Your task to perform on an android device: Open internet settings Image 0: 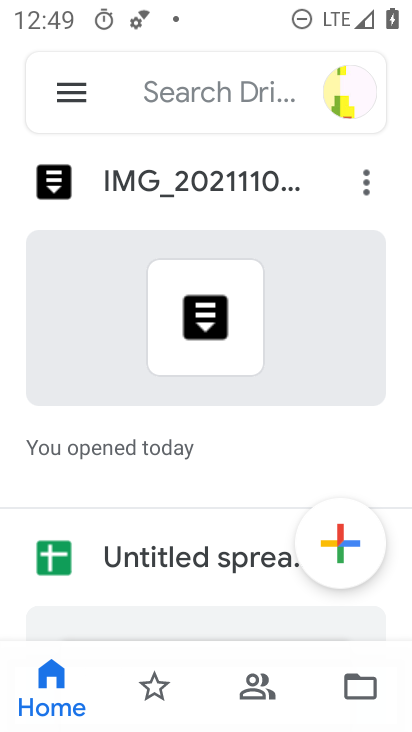
Step 0: press home button
Your task to perform on an android device: Open internet settings Image 1: 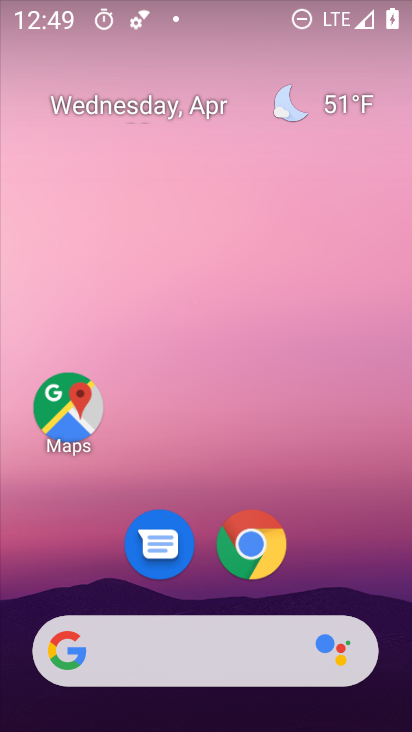
Step 1: drag from (351, 541) to (347, 95)
Your task to perform on an android device: Open internet settings Image 2: 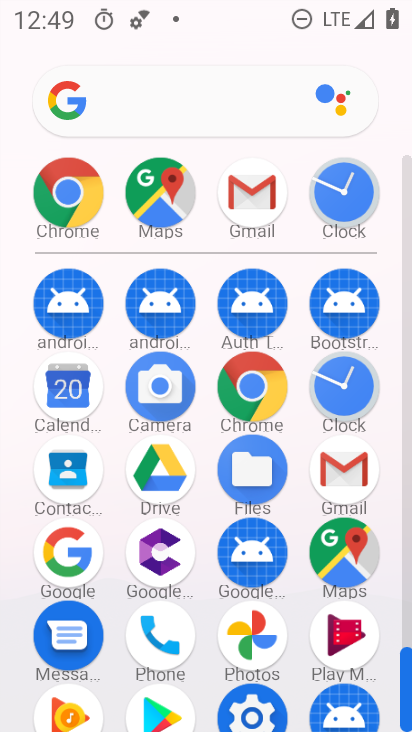
Step 2: drag from (201, 526) to (209, 312)
Your task to perform on an android device: Open internet settings Image 3: 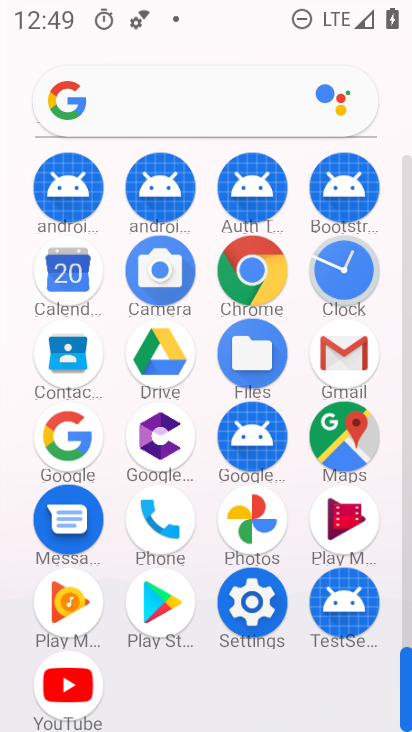
Step 3: click (247, 609)
Your task to perform on an android device: Open internet settings Image 4: 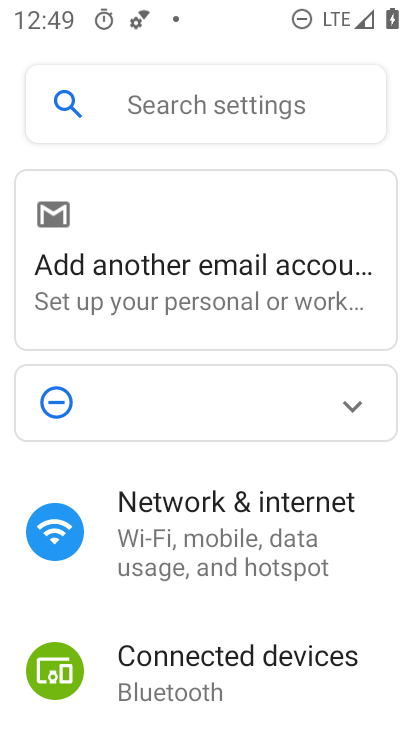
Step 4: drag from (371, 645) to (379, 356)
Your task to perform on an android device: Open internet settings Image 5: 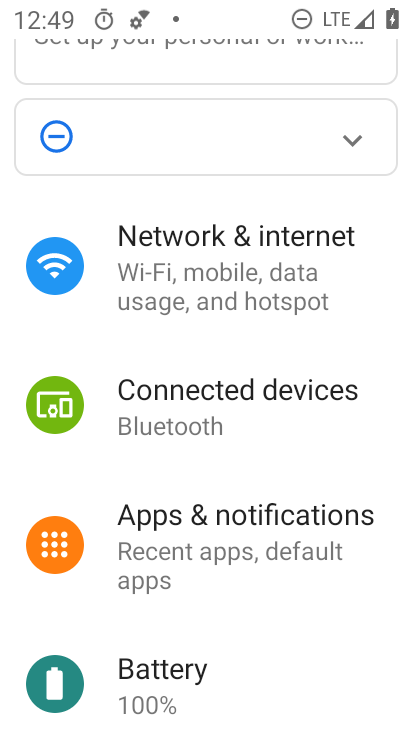
Step 5: drag from (349, 634) to (354, 404)
Your task to perform on an android device: Open internet settings Image 6: 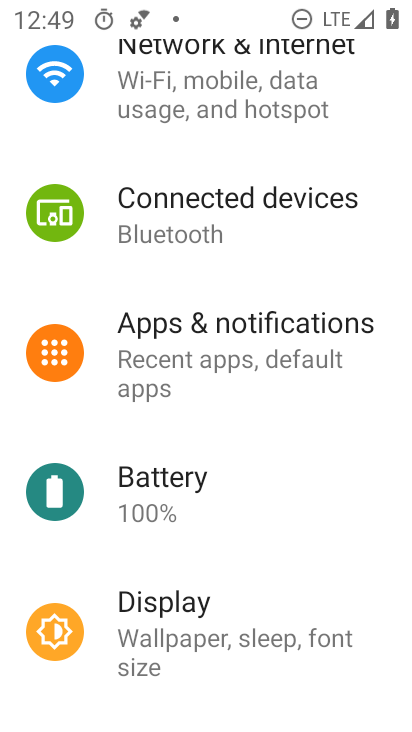
Step 6: drag from (362, 678) to (380, 483)
Your task to perform on an android device: Open internet settings Image 7: 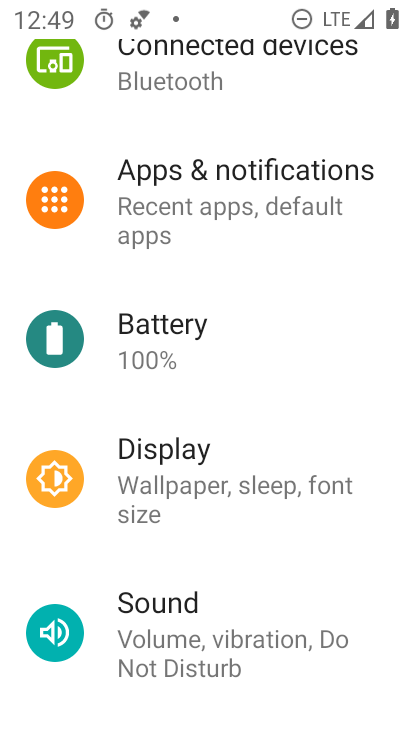
Step 7: drag from (372, 656) to (371, 445)
Your task to perform on an android device: Open internet settings Image 8: 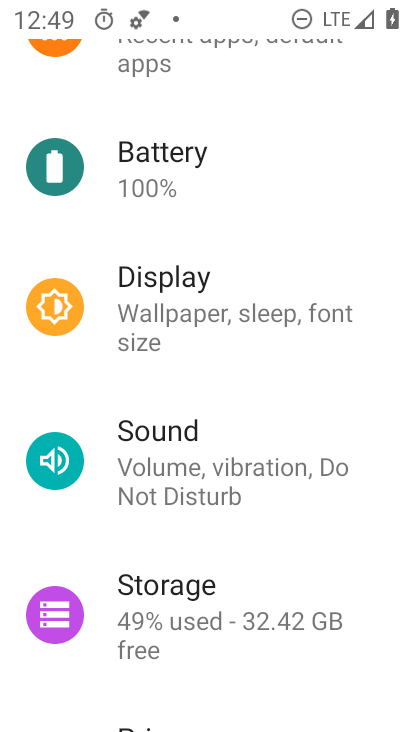
Step 8: drag from (359, 669) to (362, 483)
Your task to perform on an android device: Open internet settings Image 9: 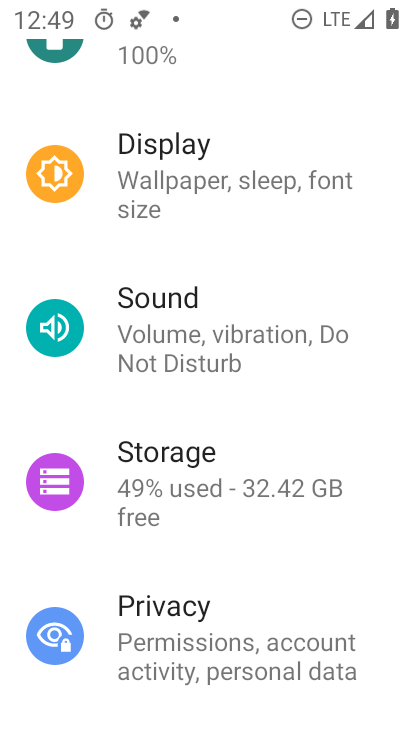
Step 9: drag from (372, 665) to (371, 493)
Your task to perform on an android device: Open internet settings Image 10: 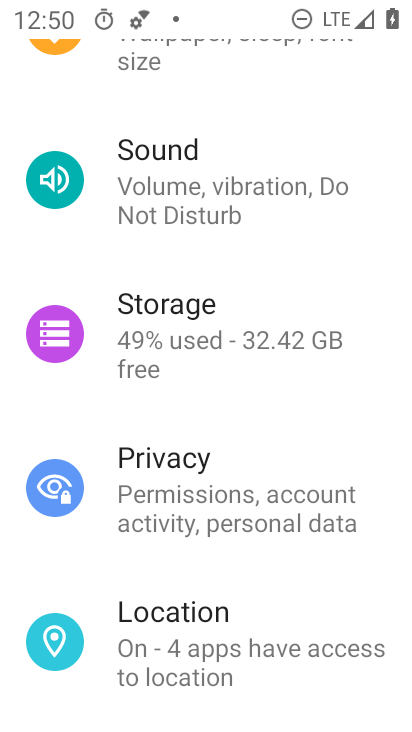
Step 10: drag from (356, 694) to (379, 447)
Your task to perform on an android device: Open internet settings Image 11: 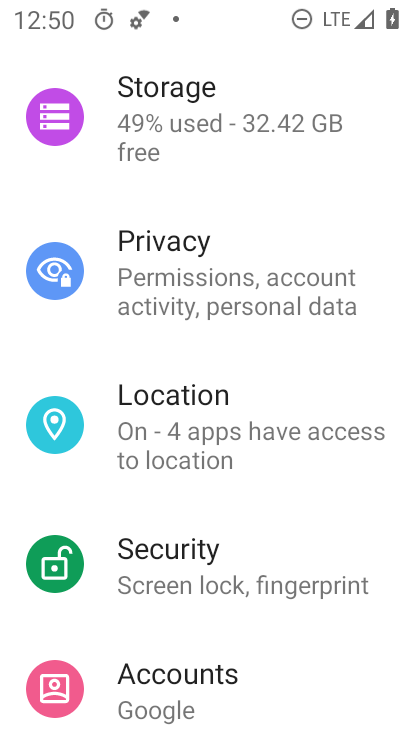
Step 11: drag from (370, 643) to (383, 409)
Your task to perform on an android device: Open internet settings Image 12: 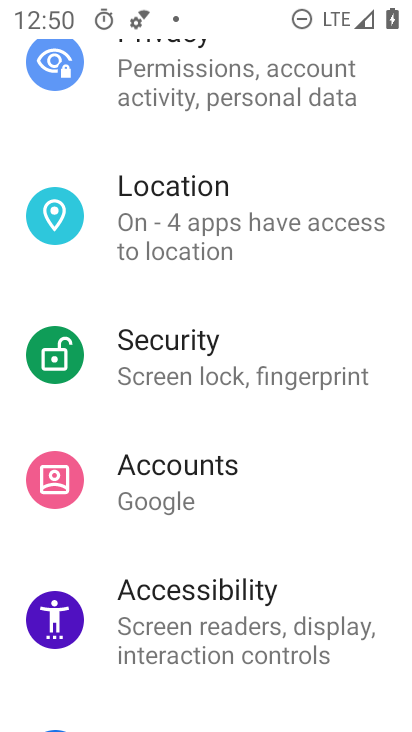
Step 12: drag from (378, 300) to (377, 463)
Your task to perform on an android device: Open internet settings Image 13: 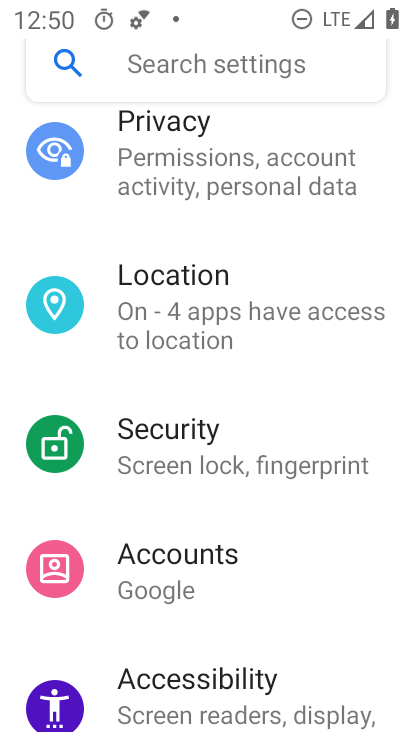
Step 13: drag from (375, 253) to (369, 431)
Your task to perform on an android device: Open internet settings Image 14: 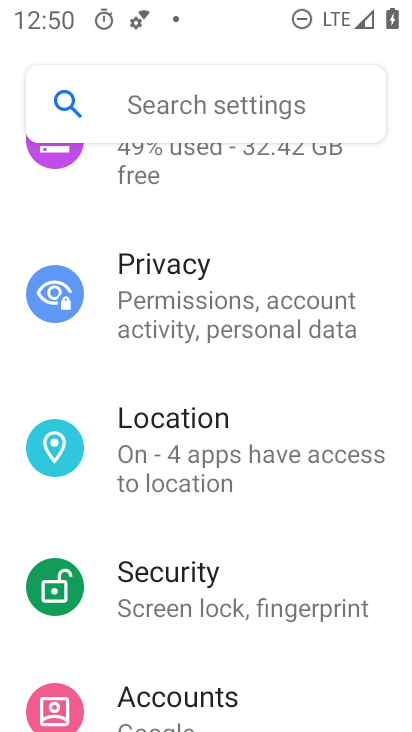
Step 14: drag from (388, 226) to (379, 413)
Your task to perform on an android device: Open internet settings Image 15: 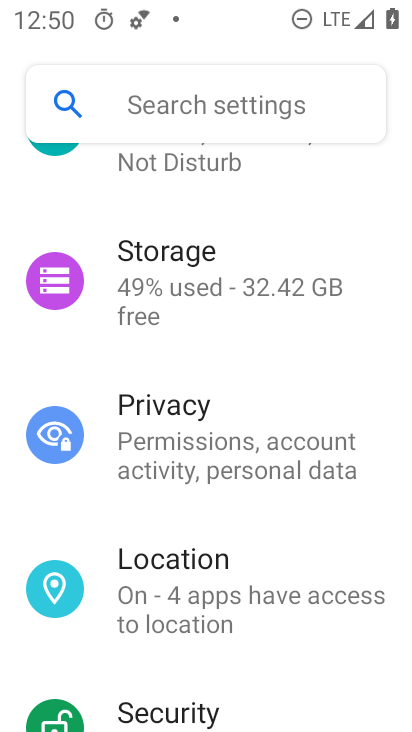
Step 15: drag from (378, 225) to (374, 442)
Your task to perform on an android device: Open internet settings Image 16: 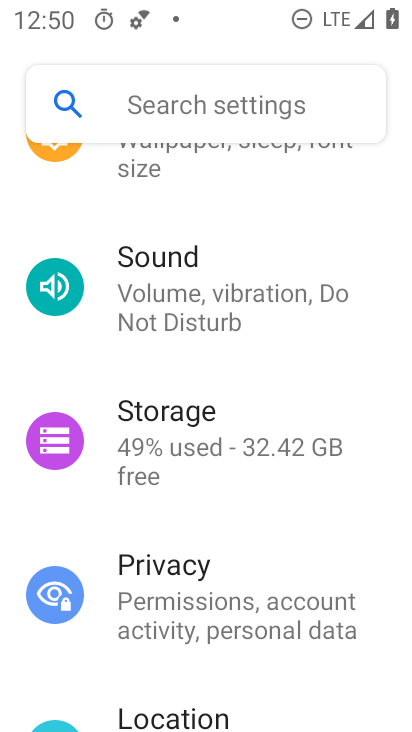
Step 16: drag from (382, 225) to (367, 413)
Your task to perform on an android device: Open internet settings Image 17: 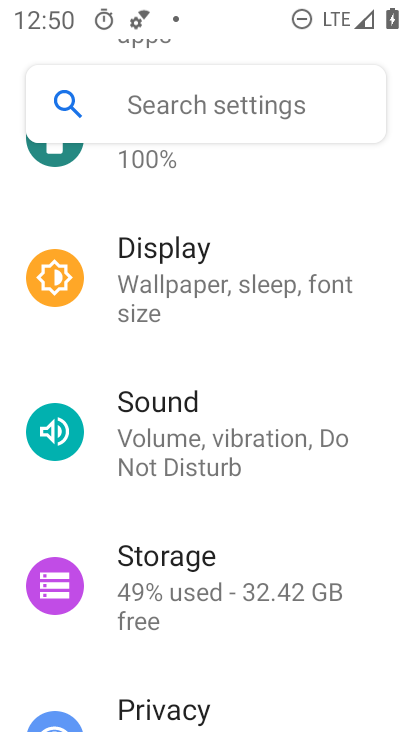
Step 17: drag from (373, 198) to (376, 418)
Your task to perform on an android device: Open internet settings Image 18: 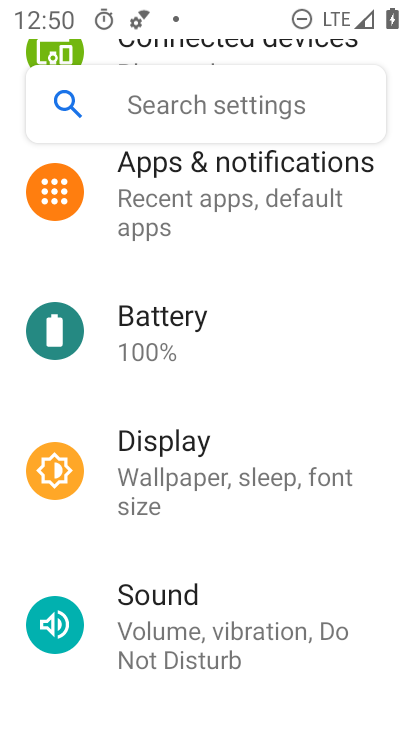
Step 18: drag from (375, 223) to (371, 427)
Your task to perform on an android device: Open internet settings Image 19: 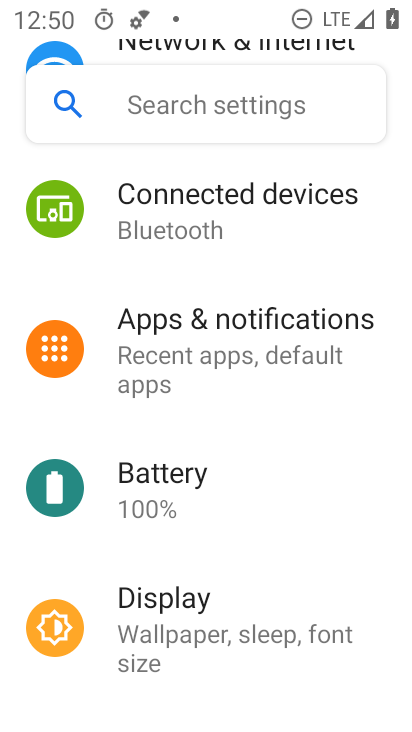
Step 19: drag from (380, 188) to (380, 436)
Your task to perform on an android device: Open internet settings Image 20: 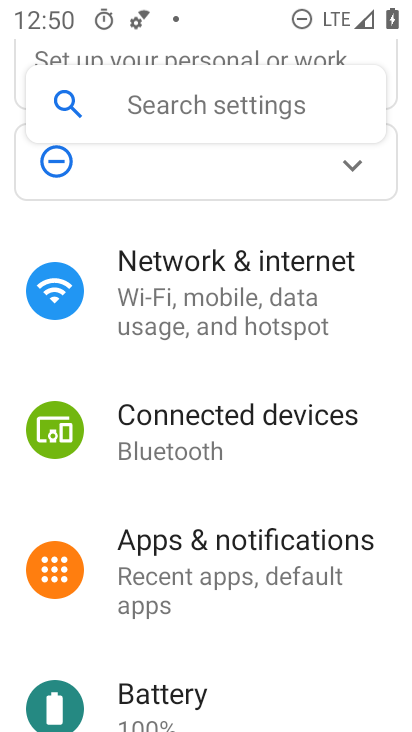
Step 20: click (231, 298)
Your task to perform on an android device: Open internet settings Image 21: 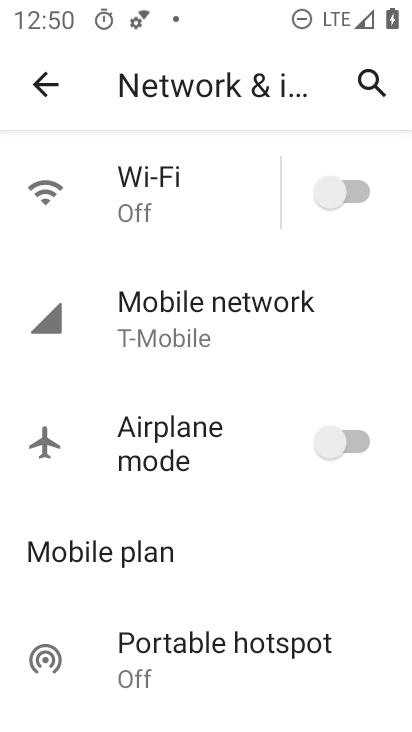
Step 21: task complete